Your task to perform on an android device: manage bookmarks in the chrome app Image 0: 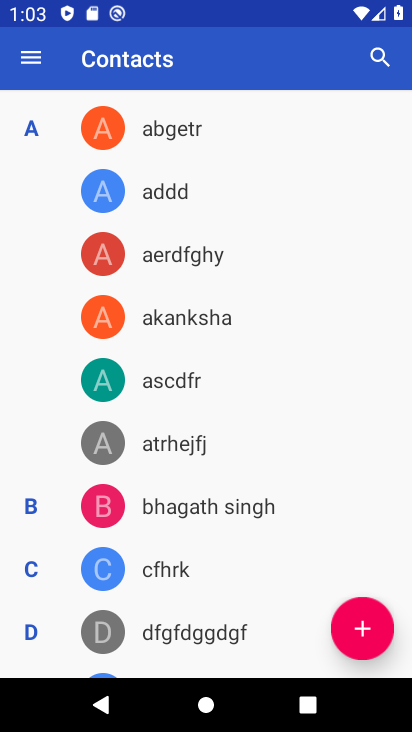
Step 0: press home button
Your task to perform on an android device: manage bookmarks in the chrome app Image 1: 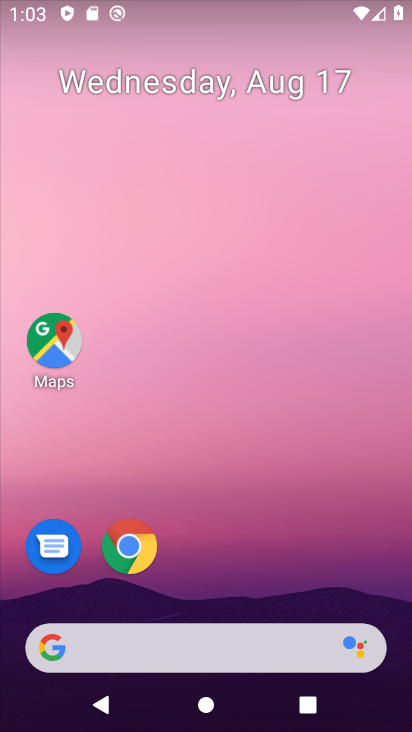
Step 1: click (129, 533)
Your task to perform on an android device: manage bookmarks in the chrome app Image 2: 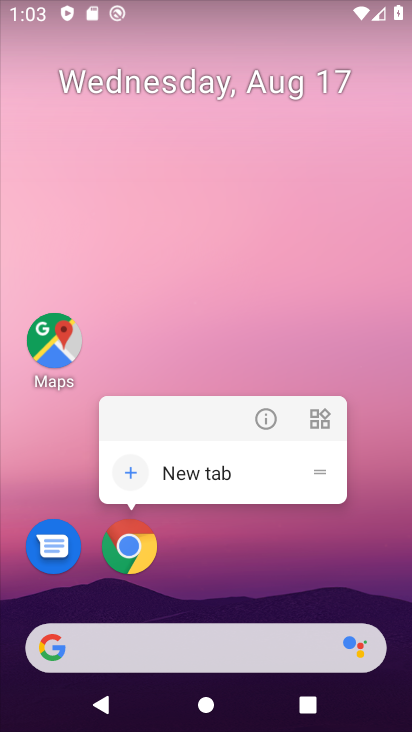
Step 2: click (129, 533)
Your task to perform on an android device: manage bookmarks in the chrome app Image 3: 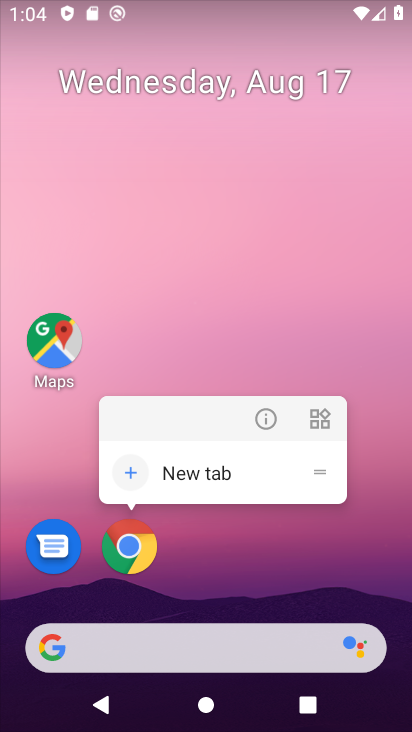
Step 3: click (129, 533)
Your task to perform on an android device: manage bookmarks in the chrome app Image 4: 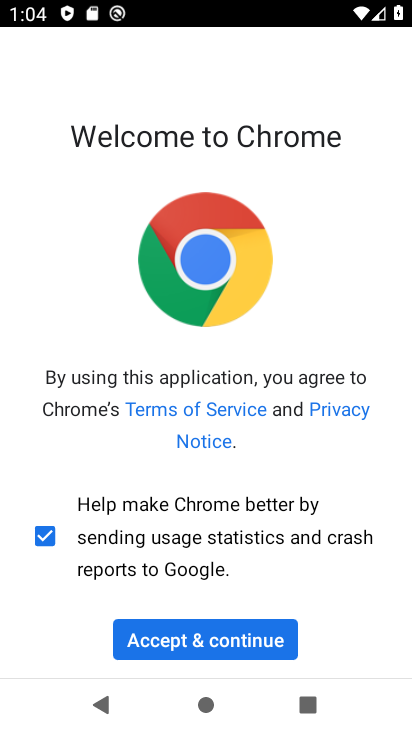
Step 4: click (208, 638)
Your task to perform on an android device: manage bookmarks in the chrome app Image 5: 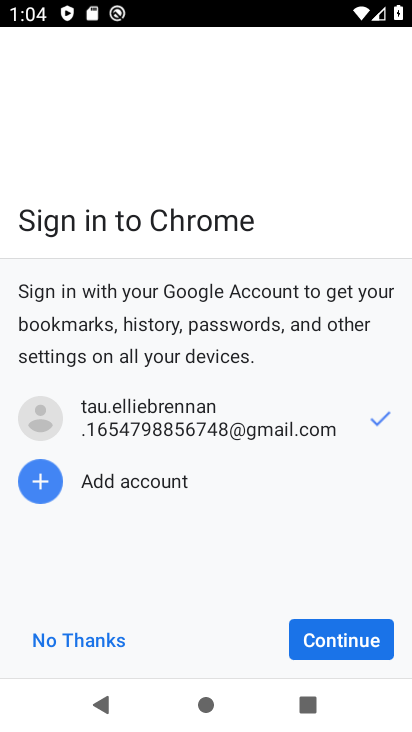
Step 5: click (313, 629)
Your task to perform on an android device: manage bookmarks in the chrome app Image 6: 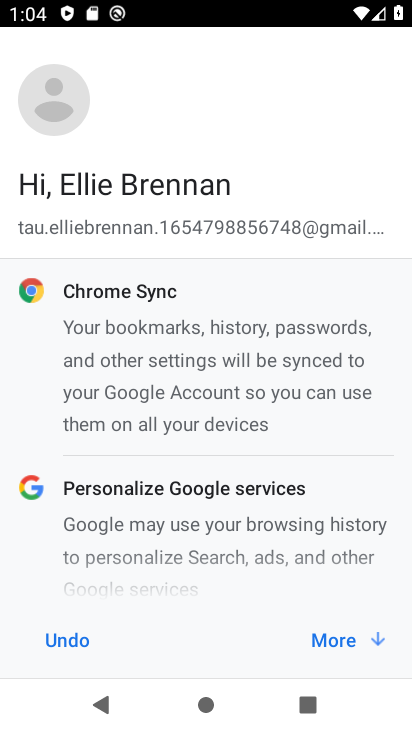
Step 6: click (309, 629)
Your task to perform on an android device: manage bookmarks in the chrome app Image 7: 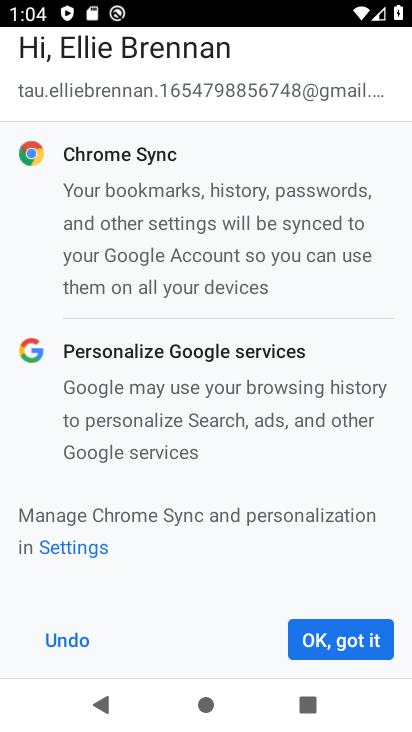
Step 7: click (309, 629)
Your task to perform on an android device: manage bookmarks in the chrome app Image 8: 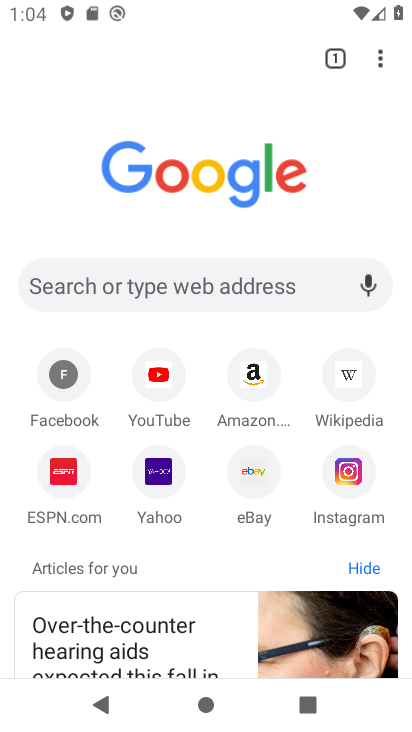
Step 8: click (378, 60)
Your task to perform on an android device: manage bookmarks in the chrome app Image 9: 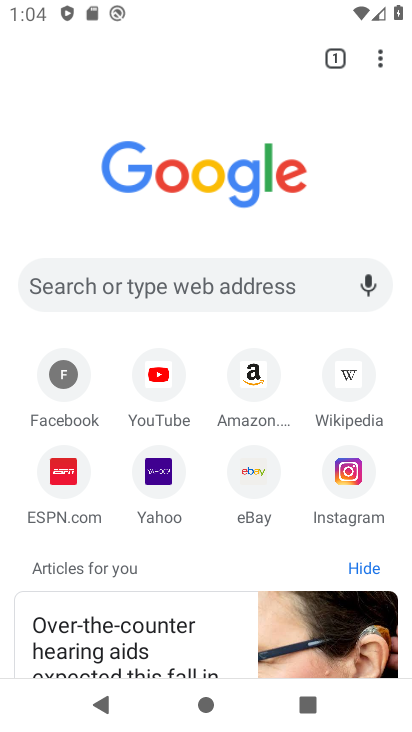
Step 9: click (379, 55)
Your task to perform on an android device: manage bookmarks in the chrome app Image 10: 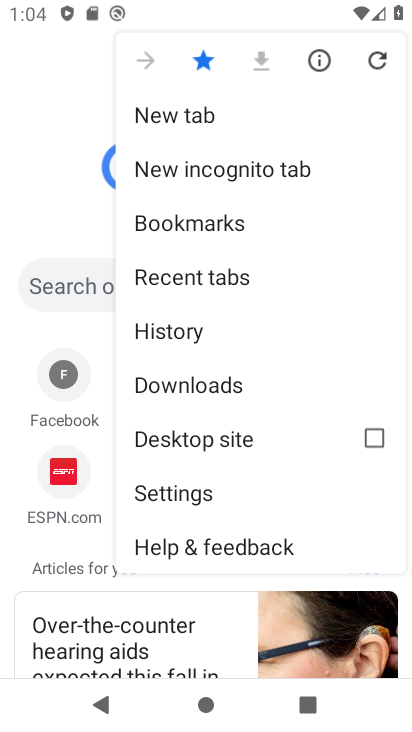
Step 10: click (214, 221)
Your task to perform on an android device: manage bookmarks in the chrome app Image 11: 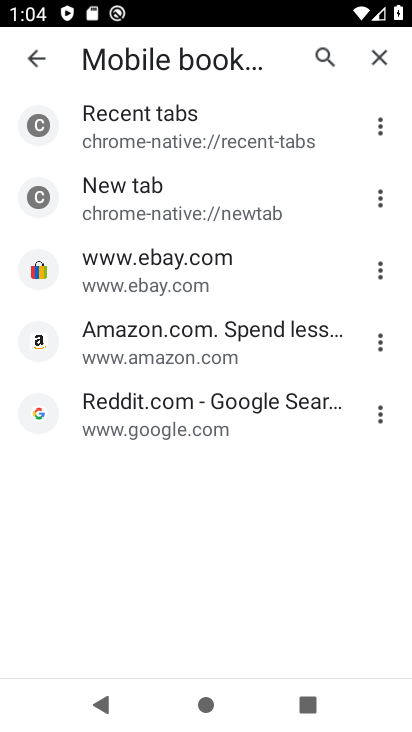
Step 11: click (374, 330)
Your task to perform on an android device: manage bookmarks in the chrome app Image 12: 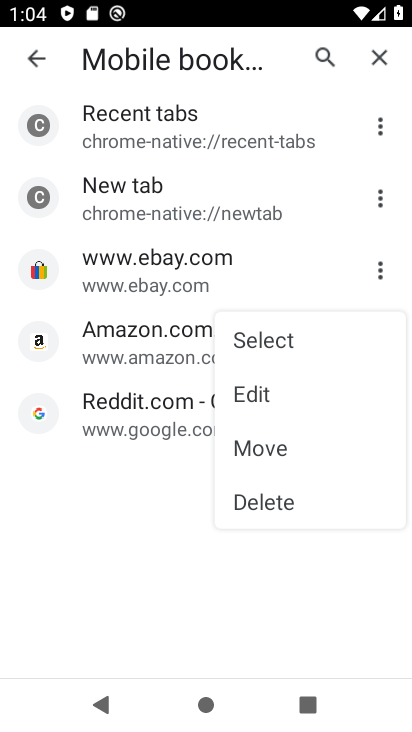
Step 12: click (280, 499)
Your task to perform on an android device: manage bookmarks in the chrome app Image 13: 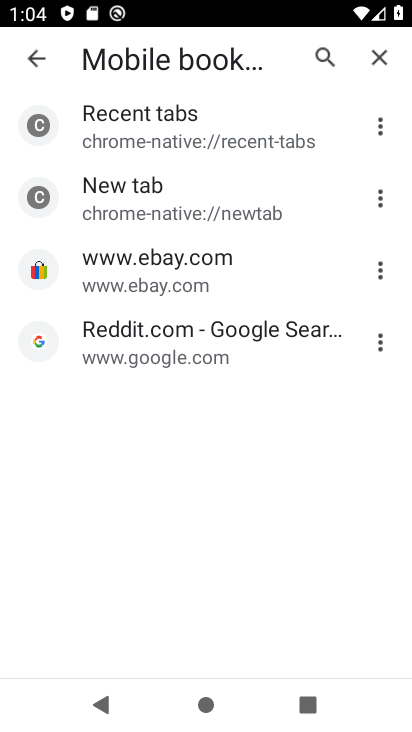
Step 13: task complete